Your task to perform on an android device: Open Google Chrome and click the shortcut for Amazon.com Image 0: 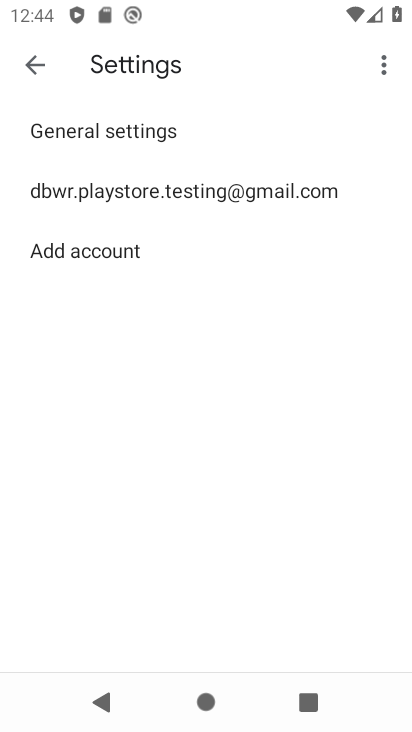
Step 0: press home button
Your task to perform on an android device: Open Google Chrome and click the shortcut for Amazon.com Image 1: 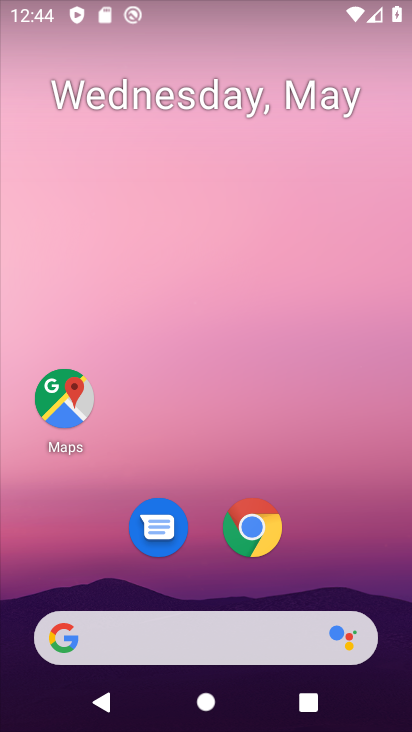
Step 1: click (252, 532)
Your task to perform on an android device: Open Google Chrome and click the shortcut for Amazon.com Image 2: 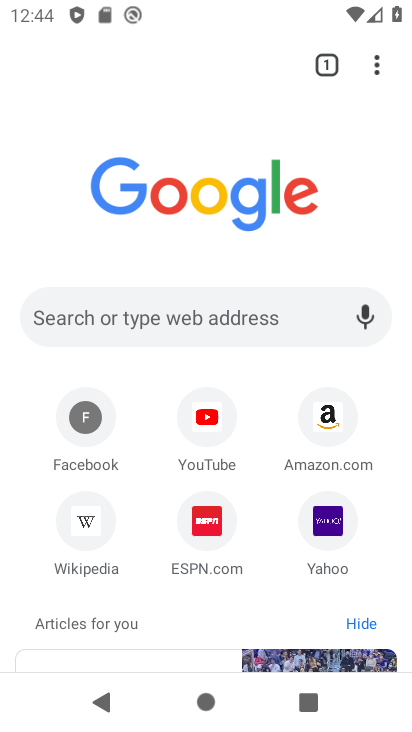
Step 2: click (328, 435)
Your task to perform on an android device: Open Google Chrome and click the shortcut for Amazon.com Image 3: 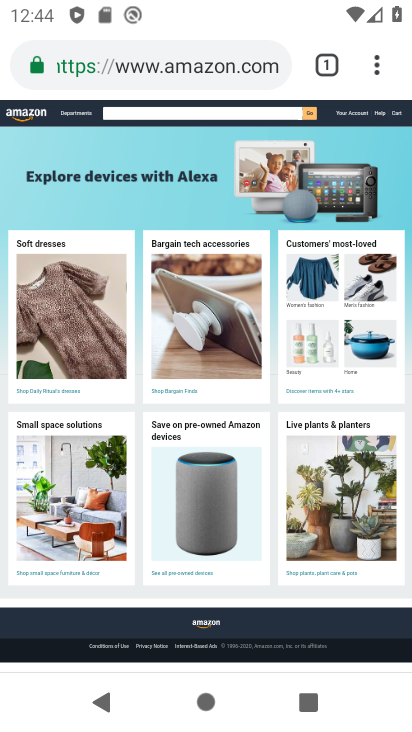
Step 3: task complete